Your task to perform on an android device: Open the web browser Image 0: 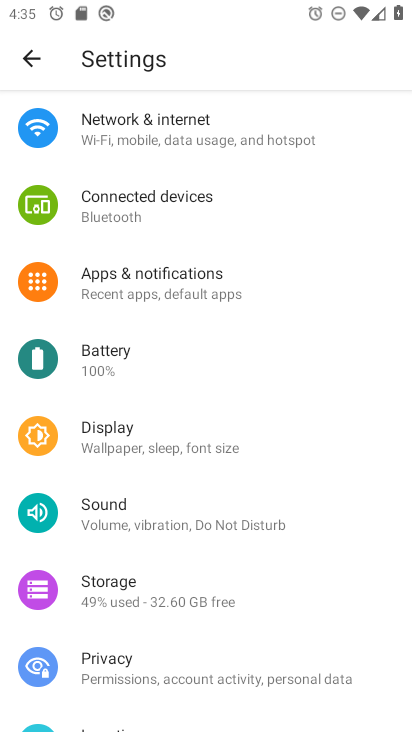
Step 0: press back button
Your task to perform on an android device: Open the web browser Image 1: 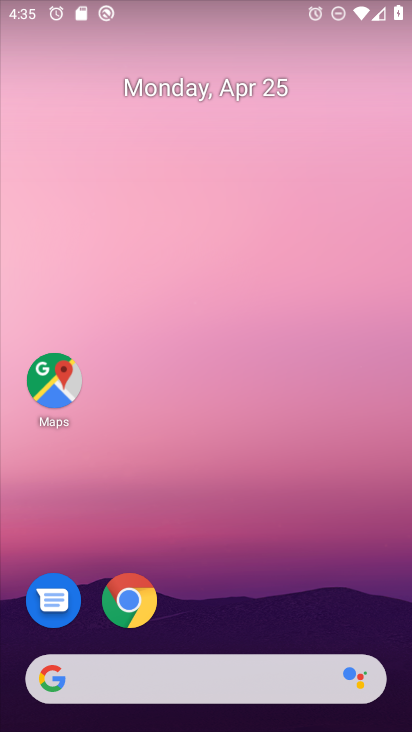
Step 1: drag from (216, 508) to (181, 70)
Your task to perform on an android device: Open the web browser Image 2: 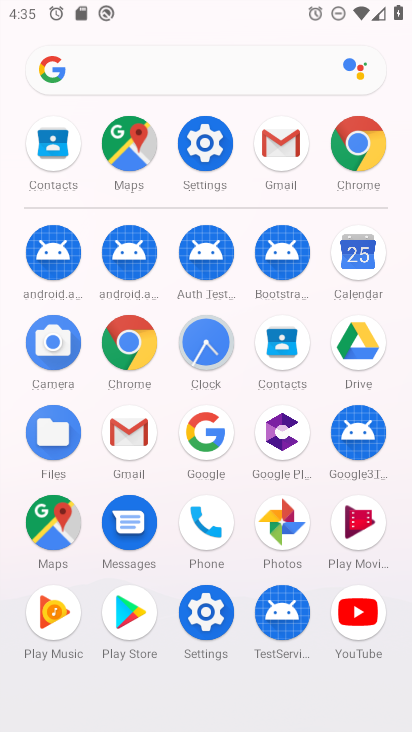
Step 2: click (127, 335)
Your task to perform on an android device: Open the web browser Image 3: 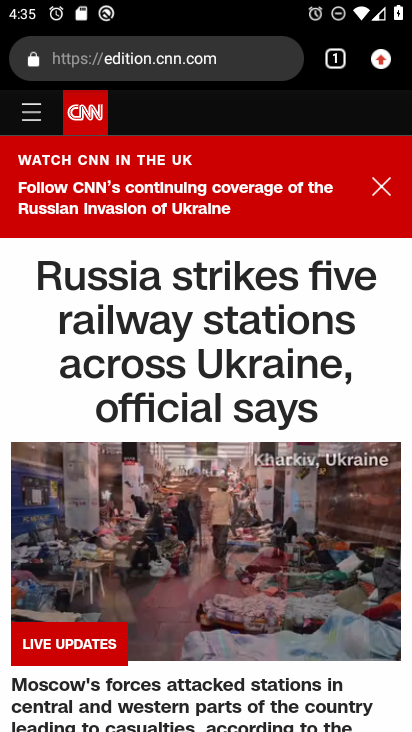
Step 3: task complete